Your task to perform on an android device: search for starred emails in the gmail app Image 0: 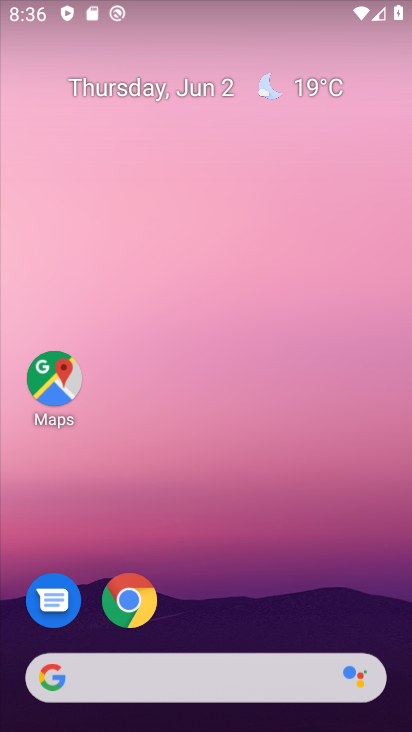
Step 0: drag from (174, 634) to (277, 197)
Your task to perform on an android device: search for starred emails in the gmail app Image 1: 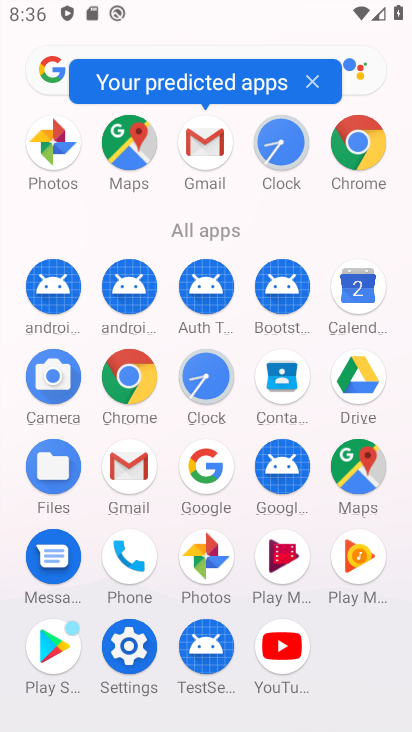
Step 1: click (137, 492)
Your task to perform on an android device: search for starred emails in the gmail app Image 2: 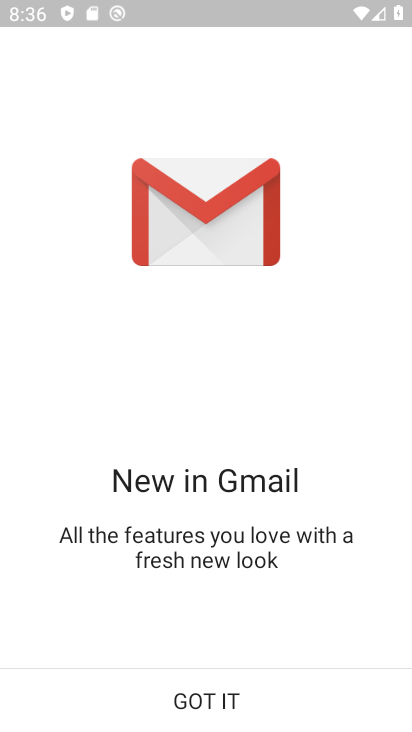
Step 2: click (254, 691)
Your task to perform on an android device: search for starred emails in the gmail app Image 3: 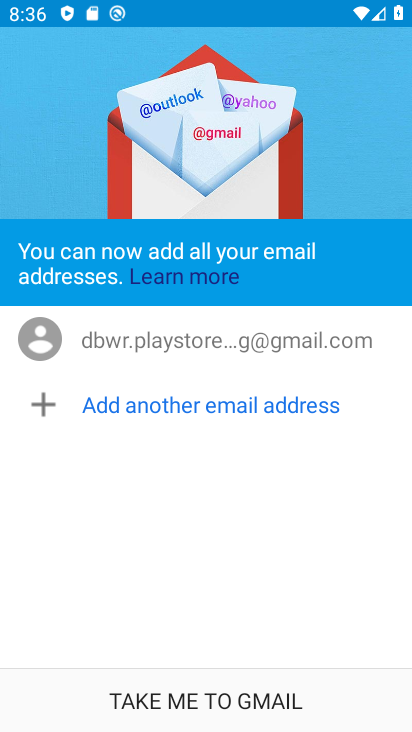
Step 3: click (248, 698)
Your task to perform on an android device: search for starred emails in the gmail app Image 4: 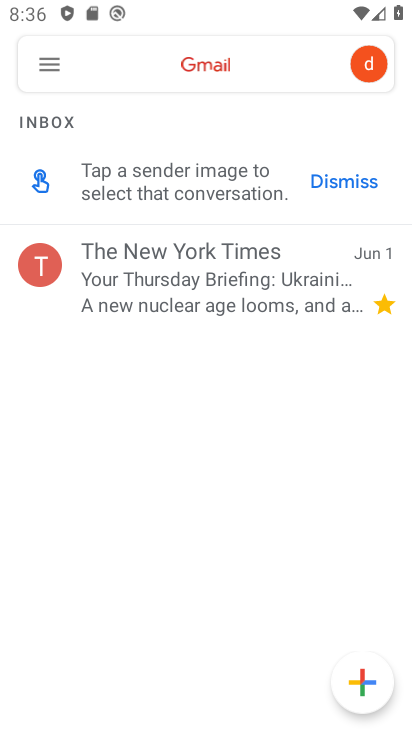
Step 4: click (66, 65)
Your task to perform on an android device: search for starred emails in the gmail app Image 5: 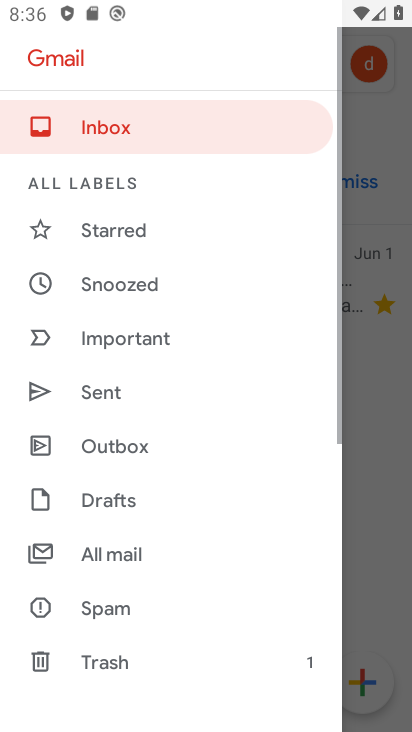
Step 5: click (165, 239)
Your task to perform on an android device: search for starred emails in the gmail app Image 6: 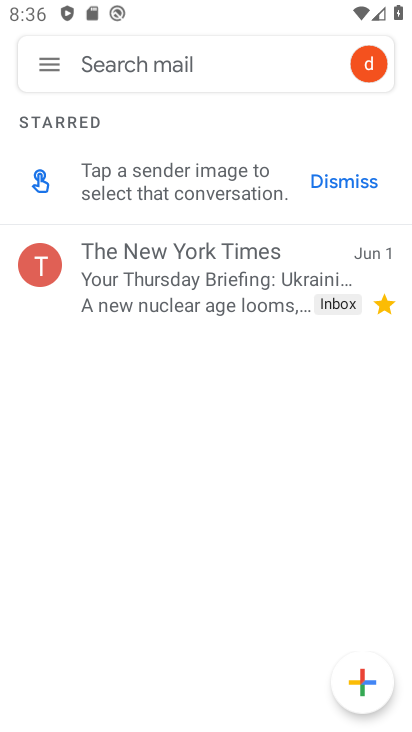
Step 6: task complete